Your task to perform on an android device: turn pop-ups on in chrome Image 0: 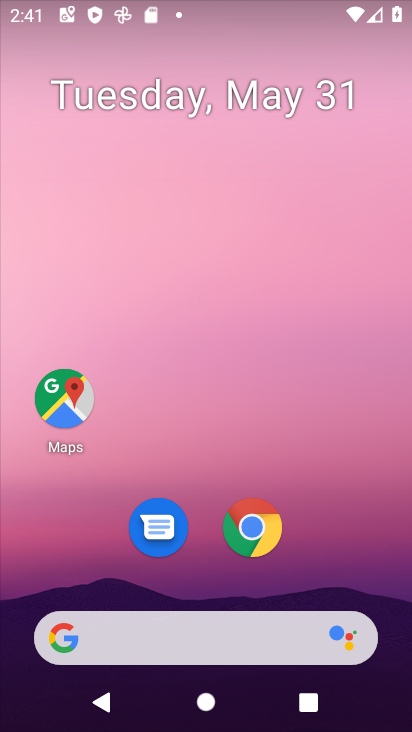
Step 0: drag from (324, 553) to (271, 100)
Your task to perform on an android device: turn pop-ups on in chrome Image 1: 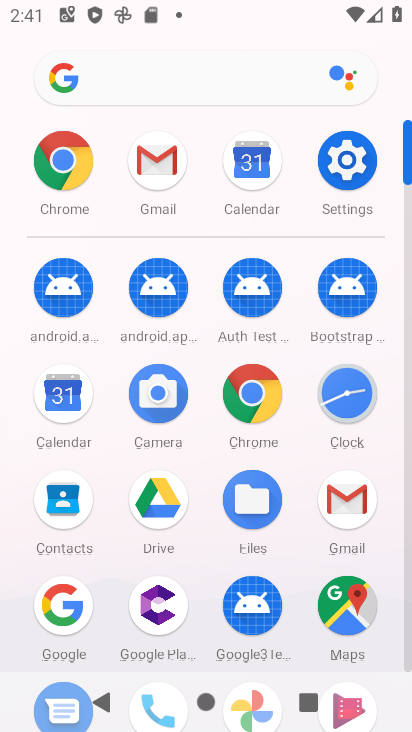
Step 1: click (56, 158)
Your task to perform on an android device: turn pop-ups on in chrome Image 2: 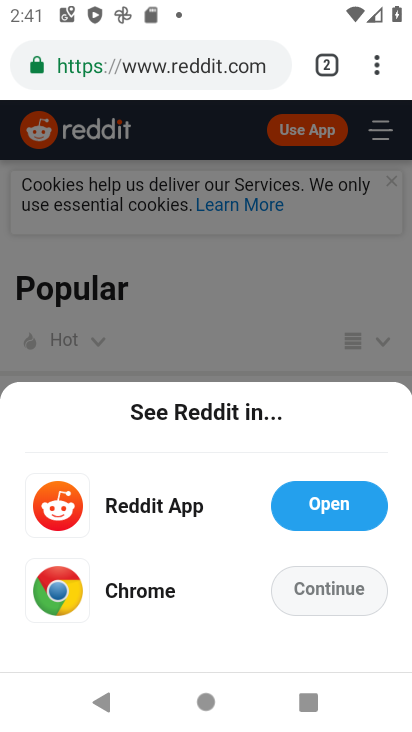
Step 2: drag from (380, 70) to (157, 585)
Your task to perform on an android device: turn pop-ups on in chrome Image 3: 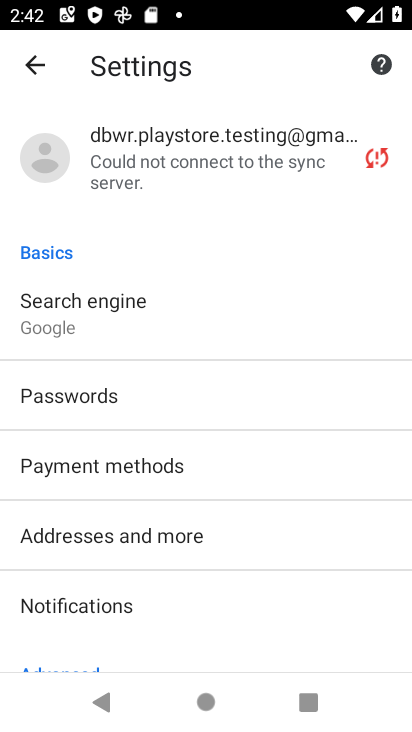
Step 3: drag from (257, 605) to (266, 271)
Your task to perform on an android device: turn pop-ups on in chrome Image 4: 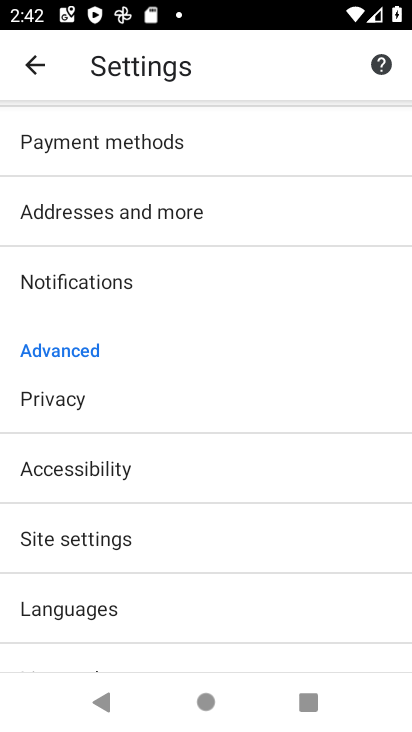
Step 4: drag from (250, 569) to (267, 288)
Your task to perform on an android device: turn pop-ups on in chrome Image 5: 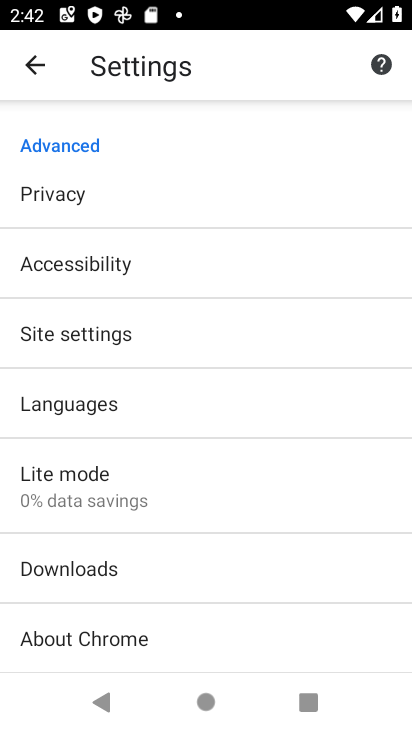
Step 5: click (158, 324)
Your task to perform on an android device: turn pop-ups on in chrome Image 6: 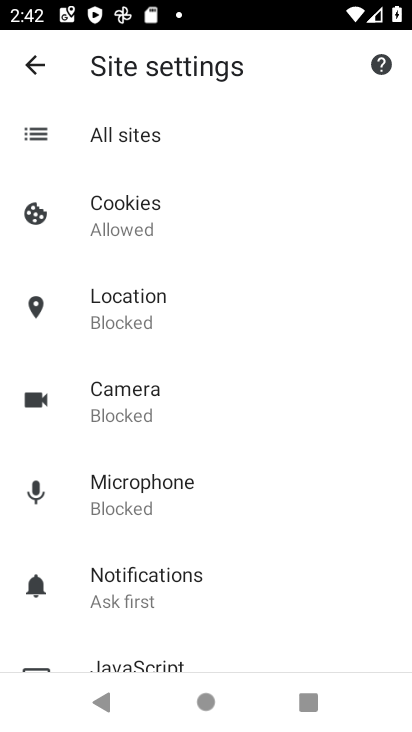
Step 6: drag from (234, 609) to (203, 290)
Your task to perform on an android device: turn pop-ups on in chrome Image 7: 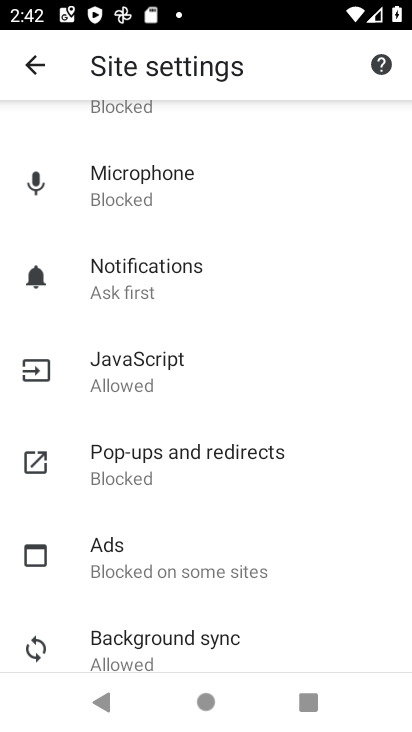
Step 7: click (140, 475)
Your task to perform on an android device: turn pop-ups on in chrome Image 8: 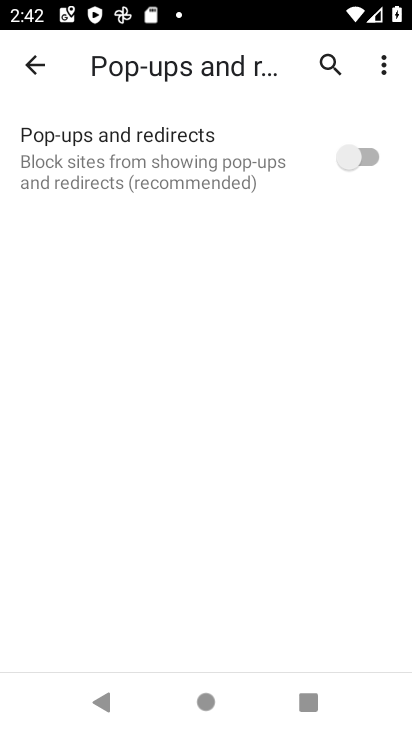
Step 8: click (358, 150)
Your task to perform on an android device: turn pop-ups on in chrome Image 9: 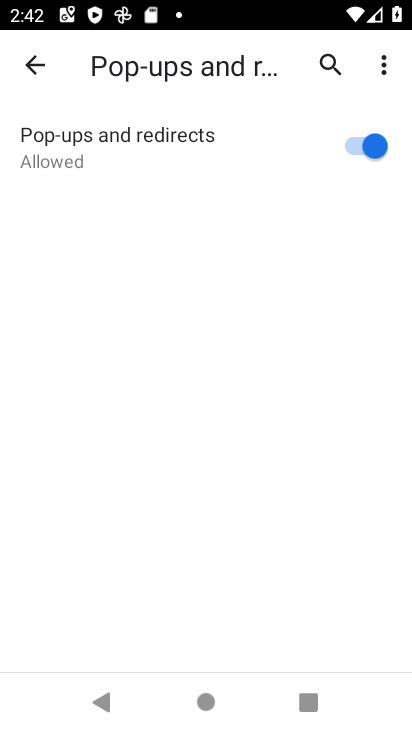
Step 9: task complete